Your task to perform on an android device: turn on data saver in the chrome app Image 0: 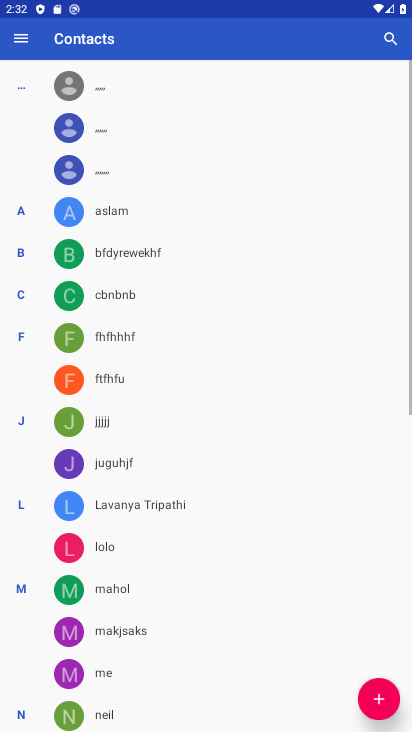
Step 0: press home button
Your task to perform on an android device: turn on data saver in the chrome app Image 1: 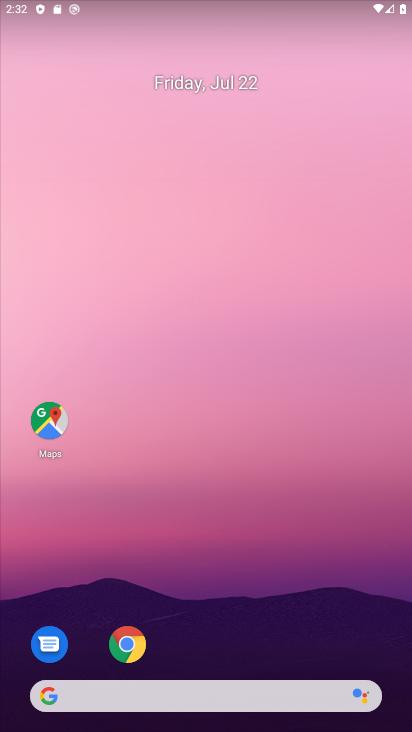
Step 1: drag from (262, 672) to (303, 198)
Your task to perform on an android device: turn on data saver in the chrome app Image 2: 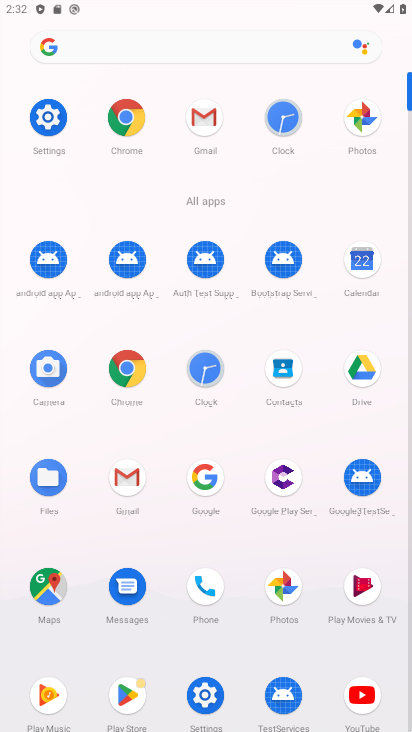
Step 2: click (123, 120)
Your task to perform on an android device: turn on data saver in the chrome app Image 3: 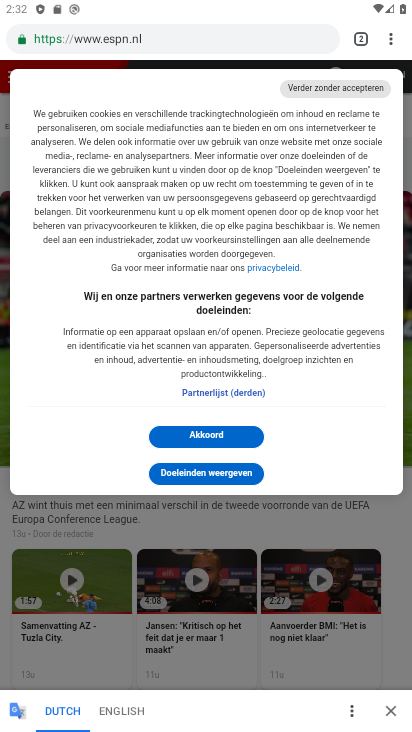
Step 3: drag from (393, 38) to (254, 519)
Your task to perform on an android device: turn on data saver in the chrome app Image 4: 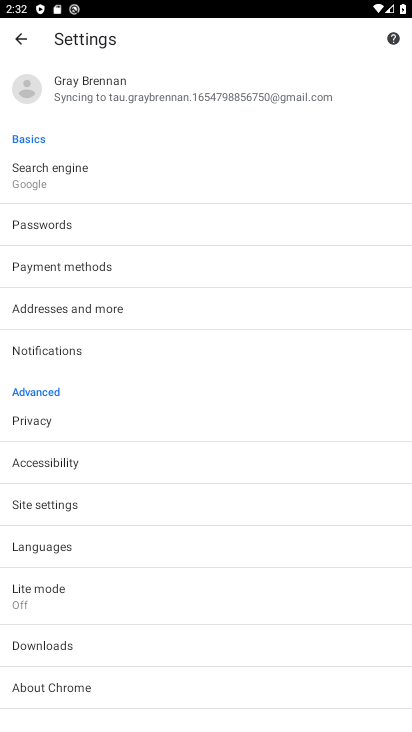
Step 4: click (50, 601)
Your task to perform on an android device: turn on data saver in the chrome app Image 5: 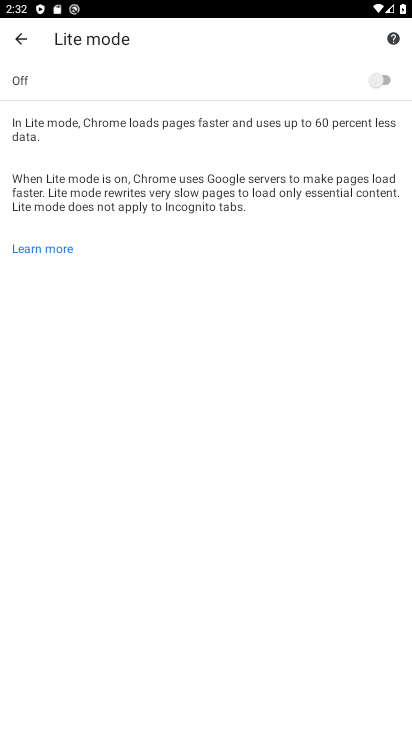
Step 5: click (379, 80)
Your task to perform on an android device: turn on data saver in the chrome app Image 6: 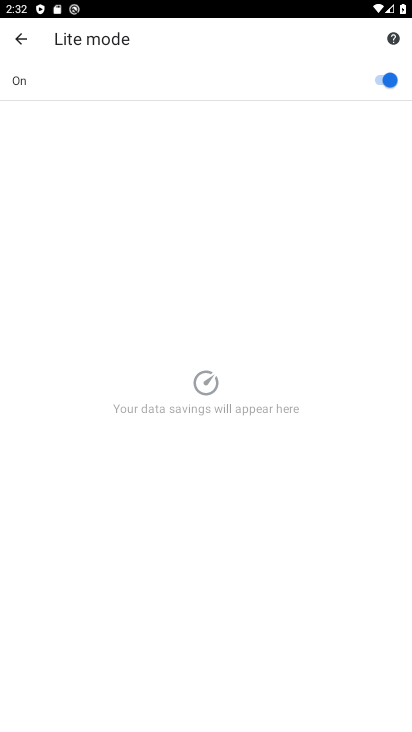
Step 6: task complete